Your task to perform on an android device: Go to Android settings Image 0: 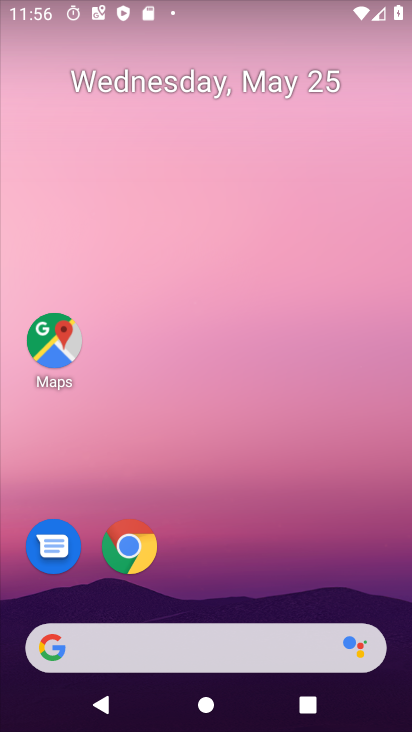
Step 0: drag from (243, 602) to (277, 29)
Your task to perform on an android device: Go to Android settings Image 1: 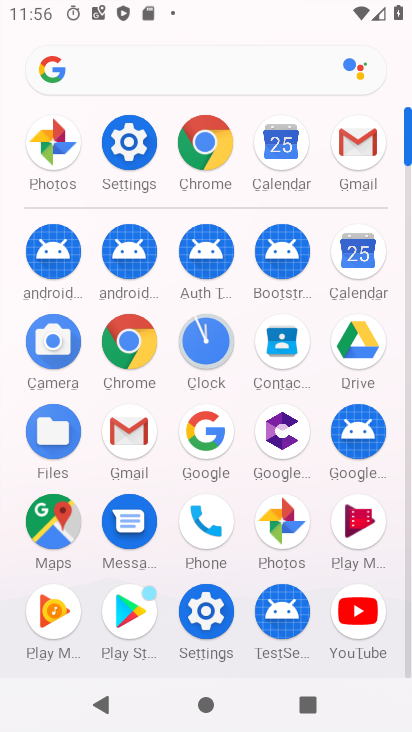
Step 1: click (124, 127)
Your task to perform on an android device: Go to Android settings Image 2: 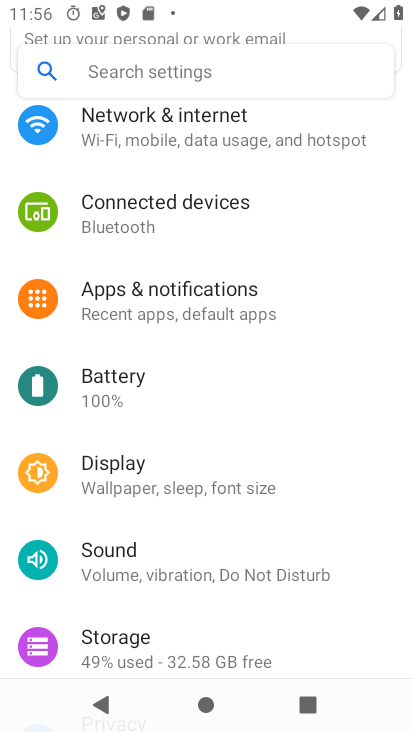
Step 2: drag from (229, 570) to (250, 148)
Your task to perform on an android device: Go to Android settings Image 3: 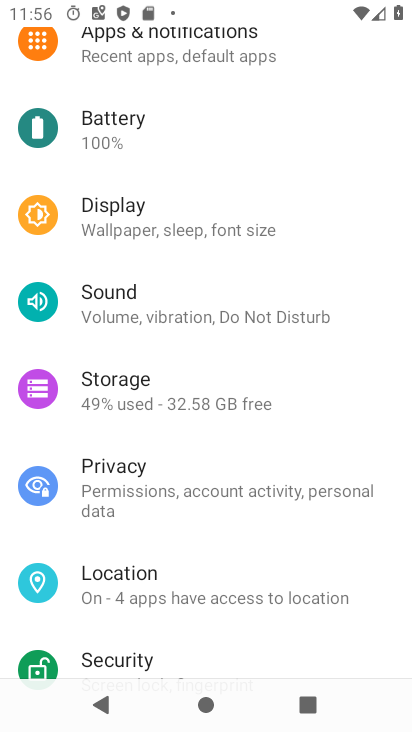
Step 3: drag from (222, 481) to (224, 81)
Your task to perform on an android device: Go to Android settings Image 4: 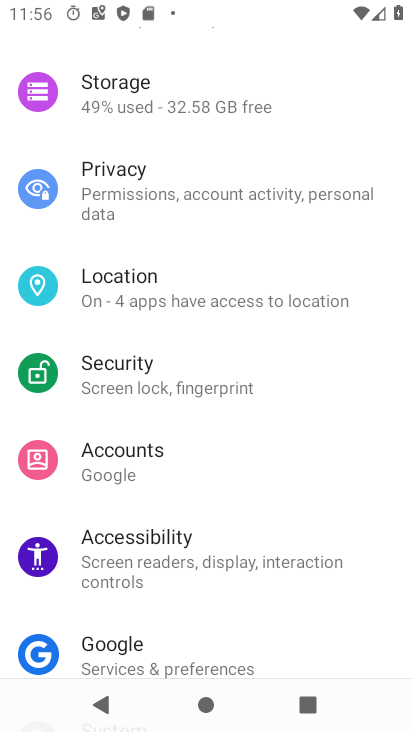
Step 4: drag from (232, 535) to (240, 49)
Your task to perform on an android device: Go to Android settings Image 5: 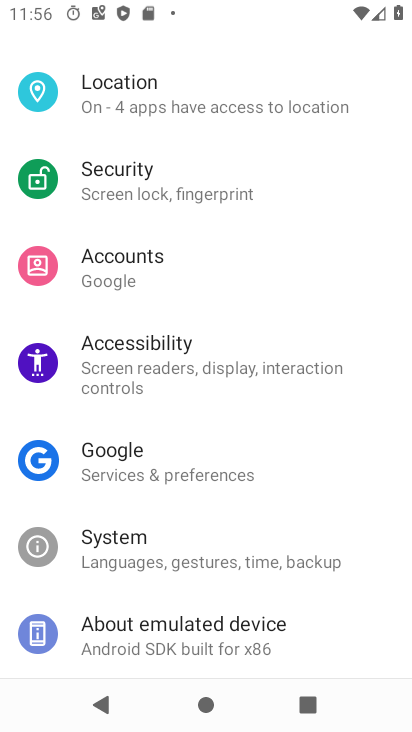
Step 5: click (148, 551)
Your task to perform on an android device: Go to Android settings Image 6: 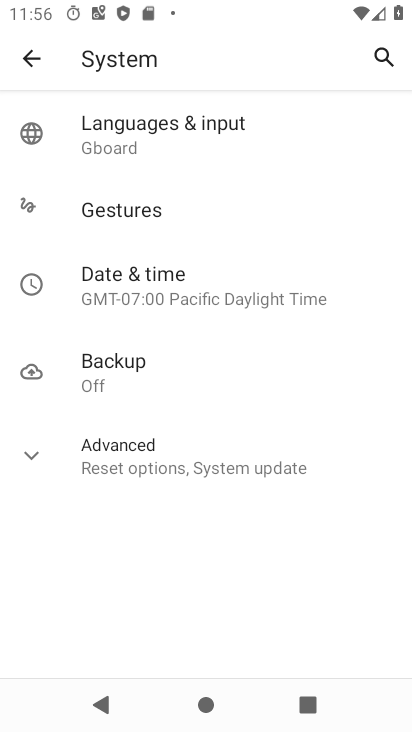
Step 6: task complete